Your task to perform on an android device: Do I have any events today? Image 0: 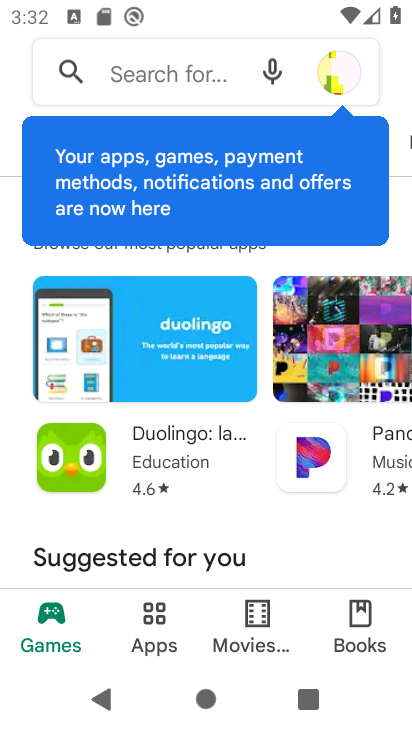
Step 0: press home button
Your task to perform on an android device: Do I have any events today? Image 1: 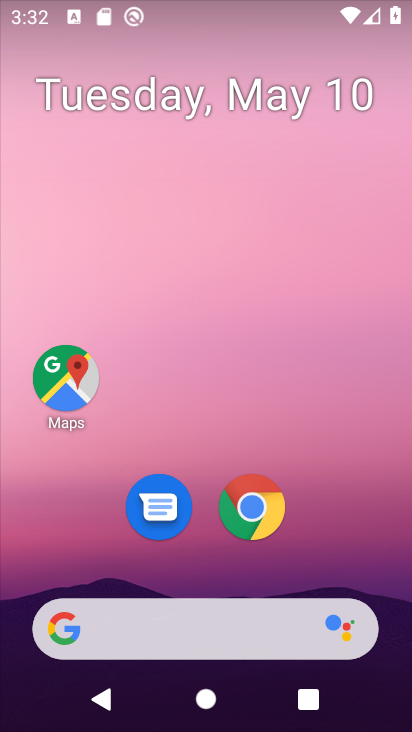
Step 1: drag from (260, 468) to (286, 248)
Your task to perform on an android device: Do I have any events today? Image 2: 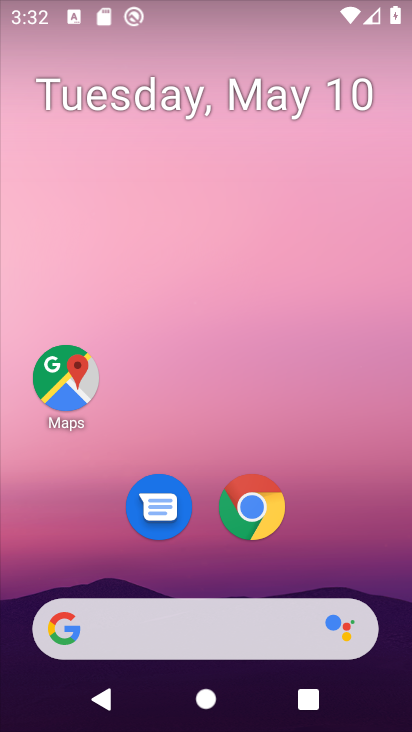
Step 2: drag from (178, 576) to (197, 297)
Your task to perform on an android device: Do I have any events today? Image 3: 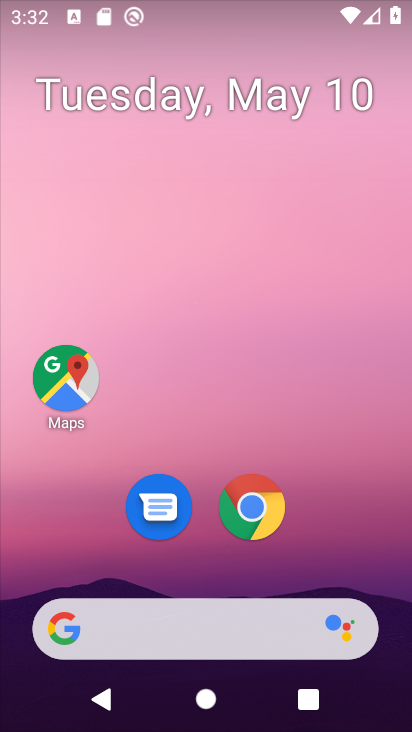
Step 3: drag from (203, 584) to (253, 219)
Your task to perform on an android device: Do I have any events today? Image 4: 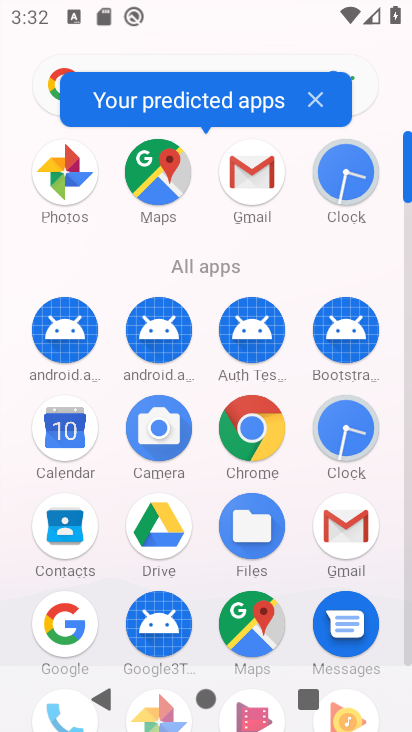
Step 4: click (49, 418)
Your task to perform on an android device: Do I have any events today? Image 5: 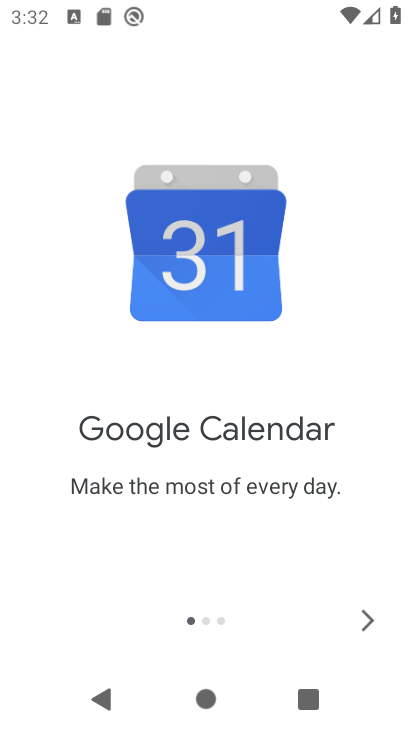
Step 5: click (365, 628)
Your task to perform on an android device: Do I have any events today? Image 6: 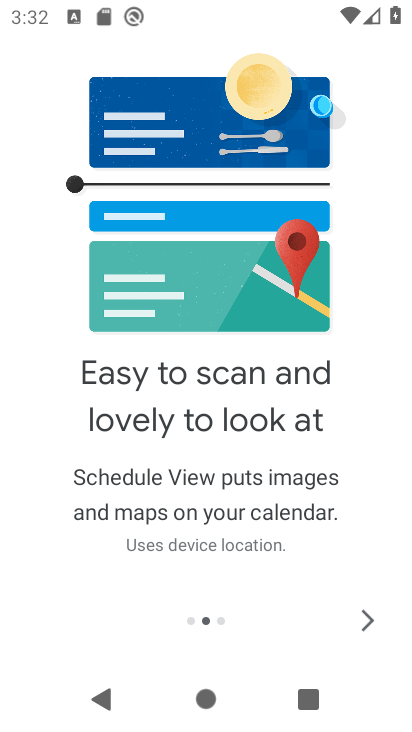
Step 6: click (365, 628)
Your task to perform on an android device: Do I have any events today? Image 7: 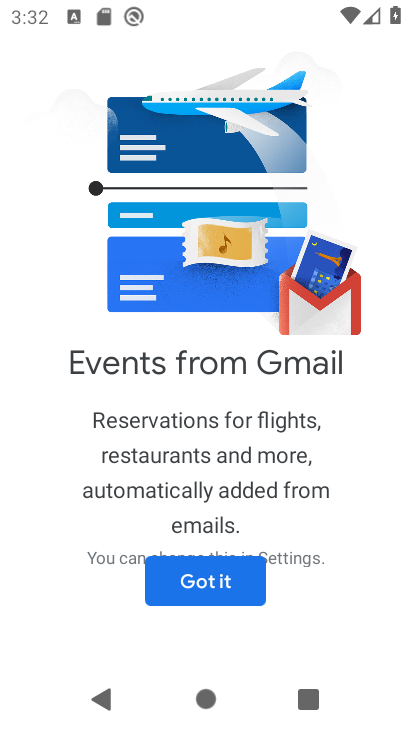
Step 7: click (365, 621)
Your task to perform on an android device: Do I have any events today? Image 8: 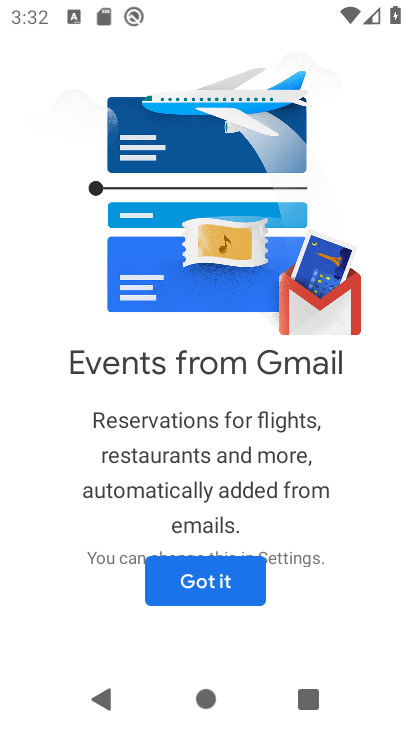
Step 8: click (237, 587)
Your task to perform on an android device: Do I have any events today? Image 9: 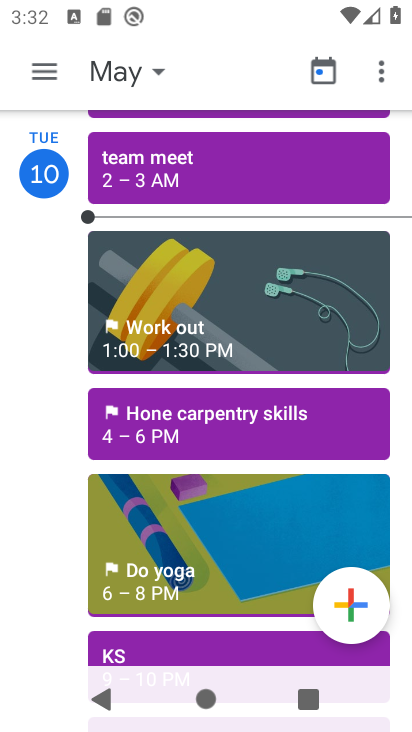
Step 9: click (128, 83)
Your task to perform on an android device: Do I have any events today? Image 10: 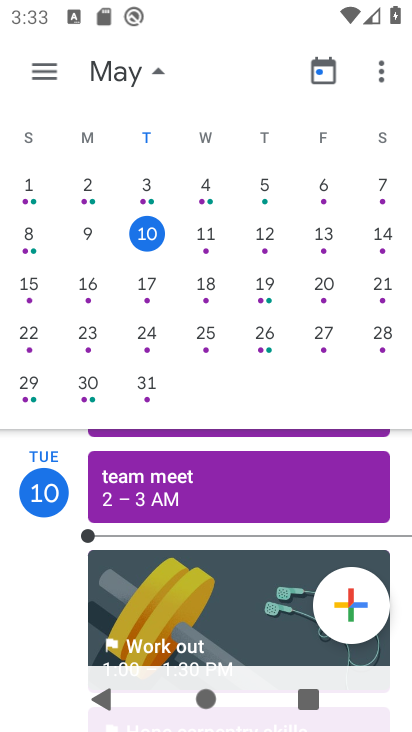
Step 10: task complete